Your task to perform on an android device: turn on javascript in the chrome app Image 0: 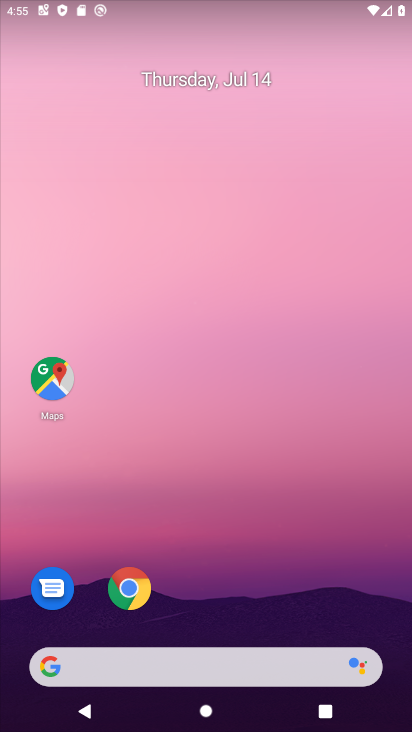
Step 0: click (127, 595)
Your task to perform on an android device: turn on javascript in the chrome app Image 1: 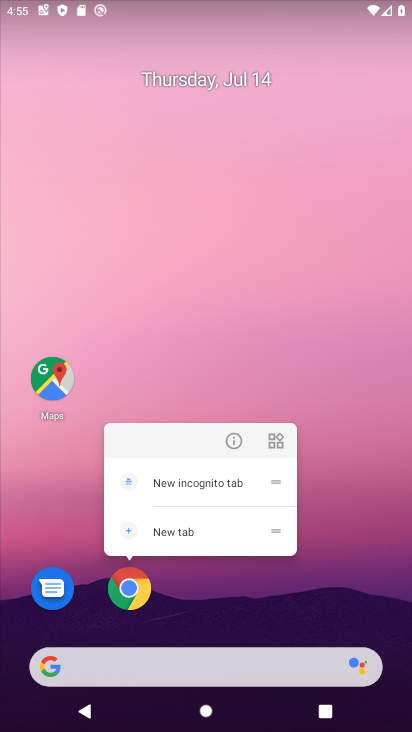
Step 1: click (127, 595)
Your task to perform on an android device: turn on javascript in the chrome app Image 2: 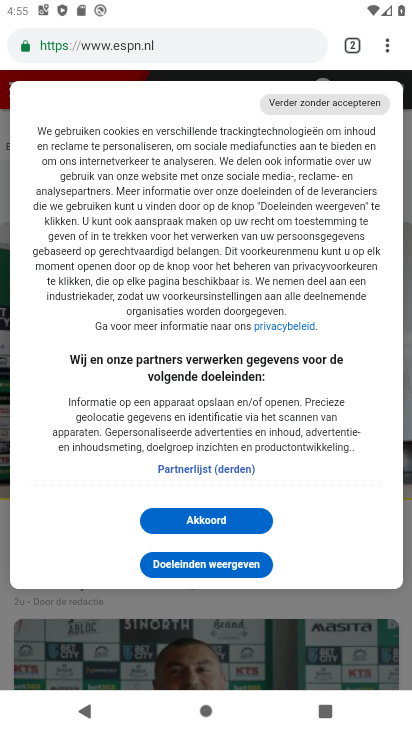
Step 2: click (382, 43)
Your task to perform on an android device: turn on javascript in the chrome app Image 3: 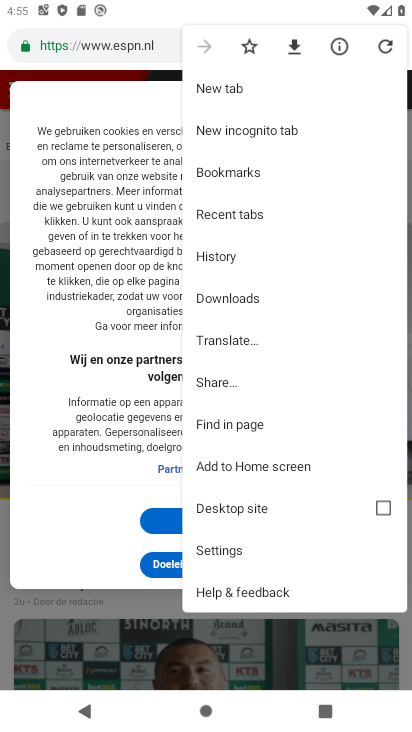
Step 3: click (226, 547)
Your task to perform on an android device: turn on javascript in the chrome app Image 4: 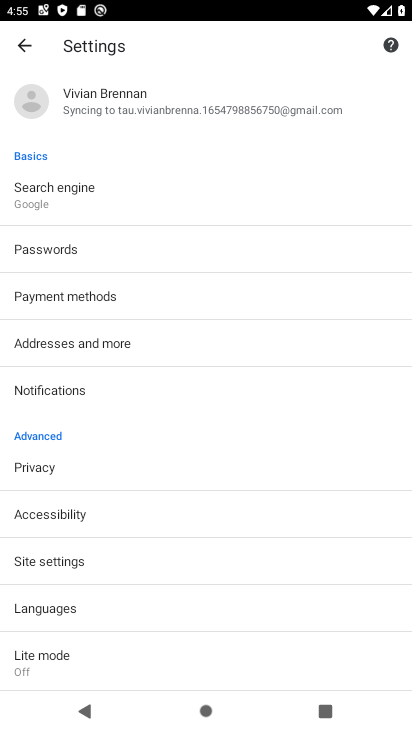
Step 4: click (36, 568)
Your task to perform on an android device: turn on javascript in the chrome app Image 5: 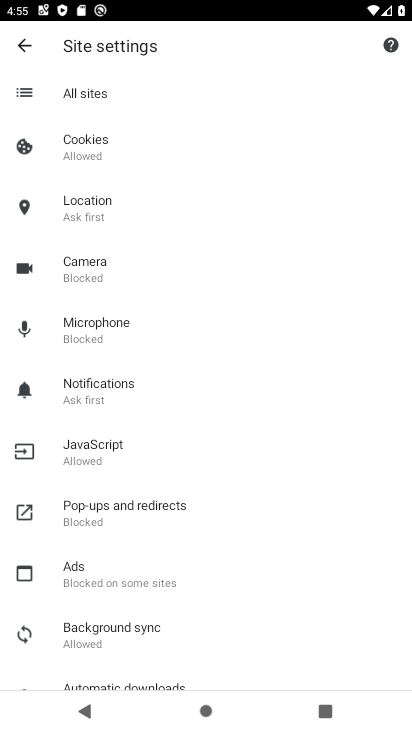
Step 5: drag from (129, 657) to (172, 268)
Your task to perform on an android device: turn on javascript in the chrome app Image 6: 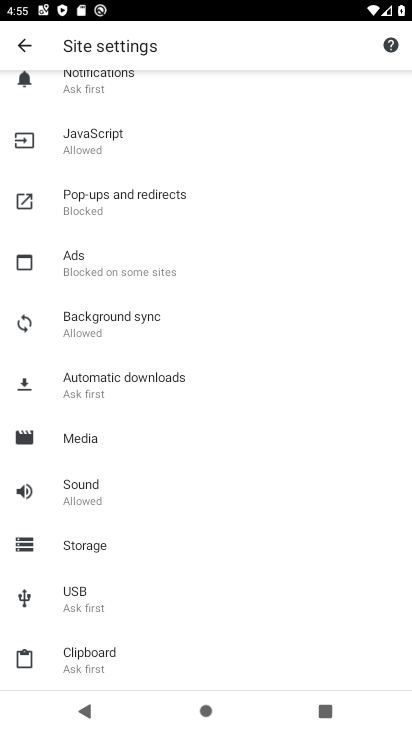
Step 6: click (111, 138)
Your task to perform on an android device: turn on javascript in the chrome app Image 7: 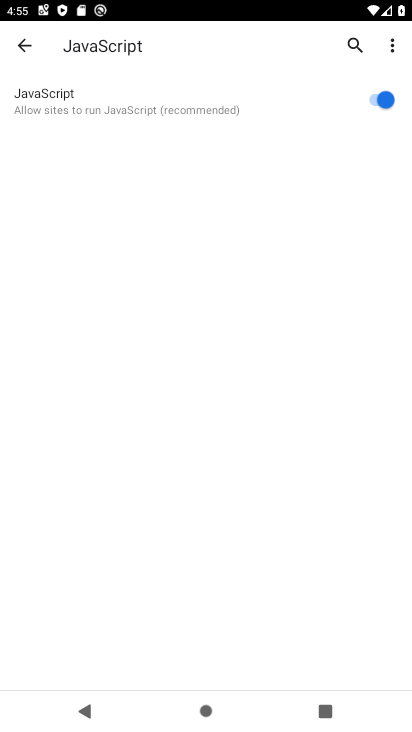
Step 7: task complete